Your task to perform on an android device: Open Android settings Image 0: 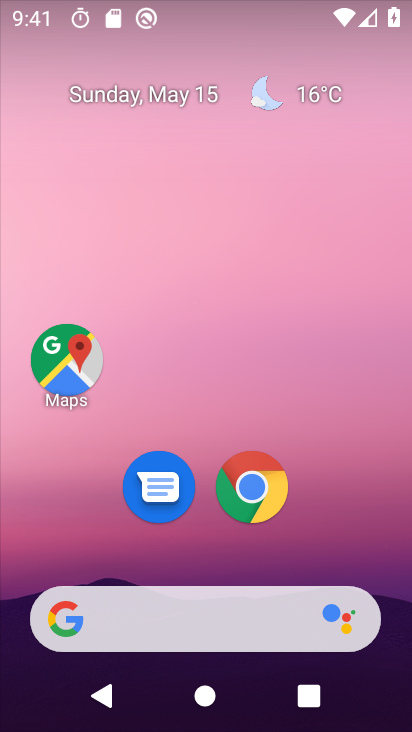
Step 0: drag from (300, 506) to (290, 192)
Your task to perform on an android device: Open Android settings Image 1: 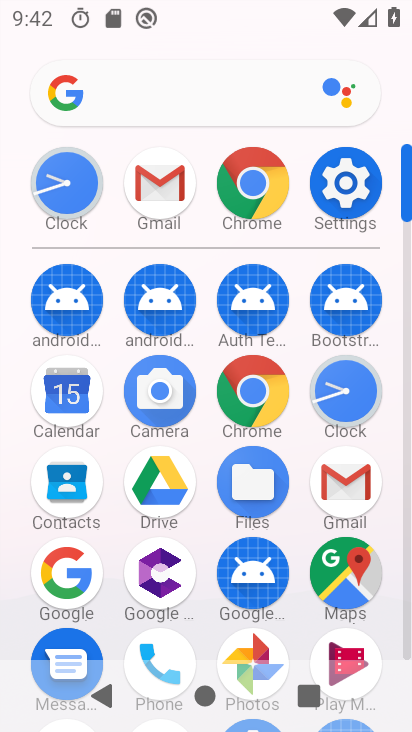
Step 1: click (343, 201)
Your task to perform on an android device: Open Android settings Image 2: 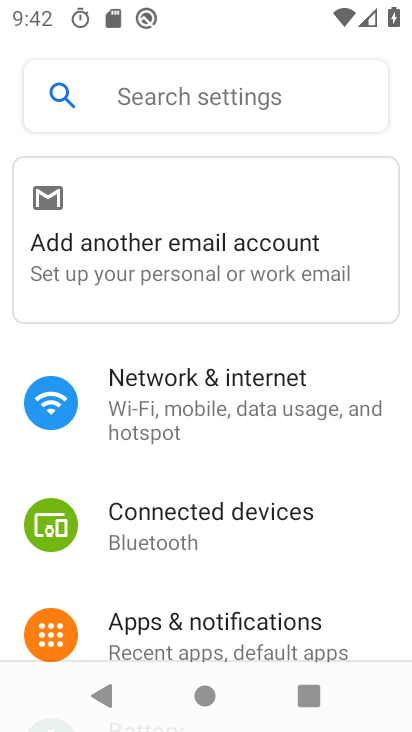
Step 2: drag from (293, 626) to (306, 240)
Your task to perform on an android device: Open Android settings Image 3: 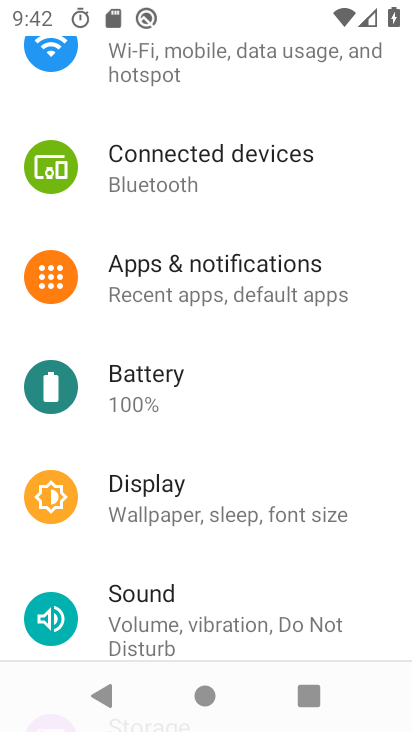
Step 3: drag from (335, 582) to (338, 160)
Your task to perform on an android device: Open Android settings Image 4: 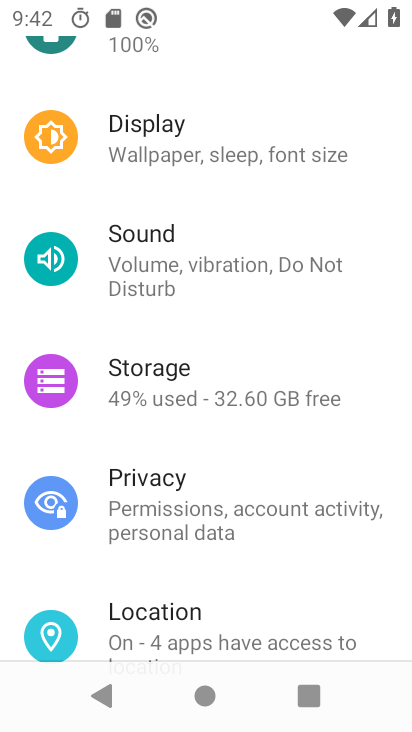
Step 4: drag from (294, 594) to (285, 220)
Your task to perform on an android device: Open Android settings Image 5: 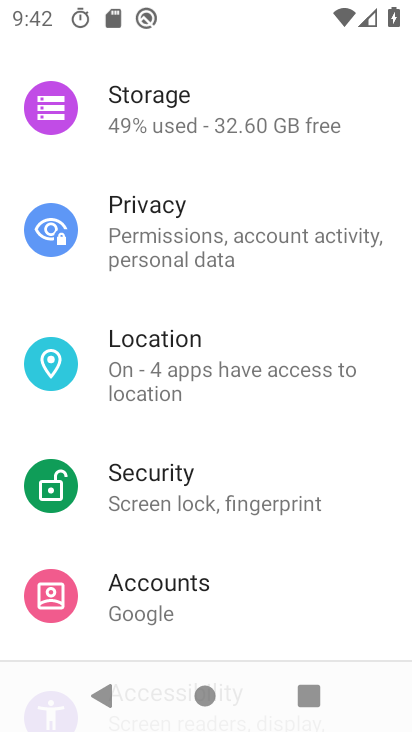
Step 5: drag from (325, 517) to (369, 235)
Your task to perform on an android device: Open Android settings Image 6: 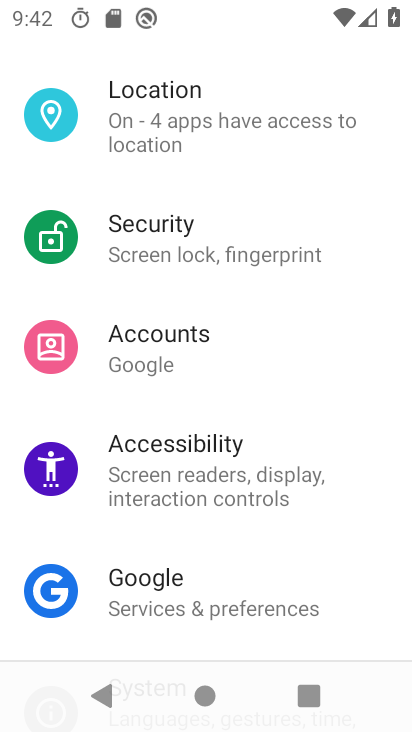
Step 6: drag from (289, 635) to (311, 180)
Your task to perform on an android device: Open Android settings Image 7: 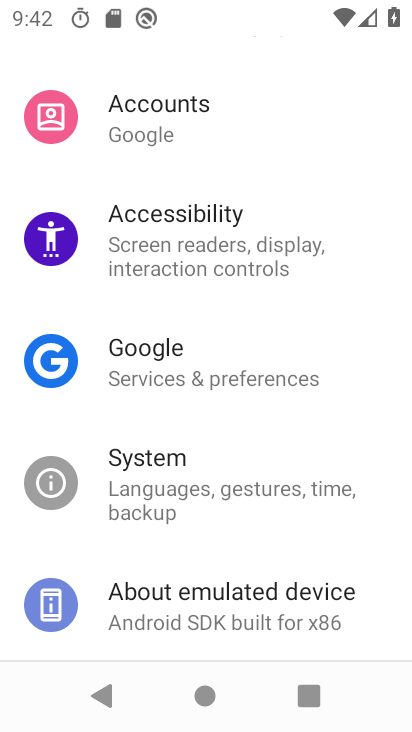
Step 7: click (179, 599)
Your task to perform on an android device: Open Android settings Image 8: 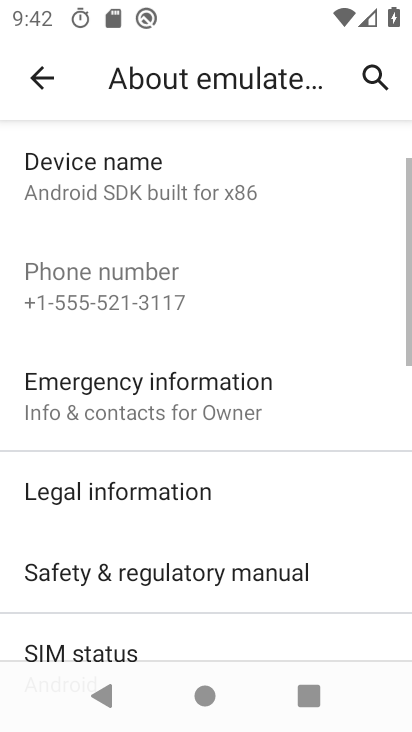
Step 8: task complete